Your task to perform on an android device: Google the capital of Colombia Image 0: 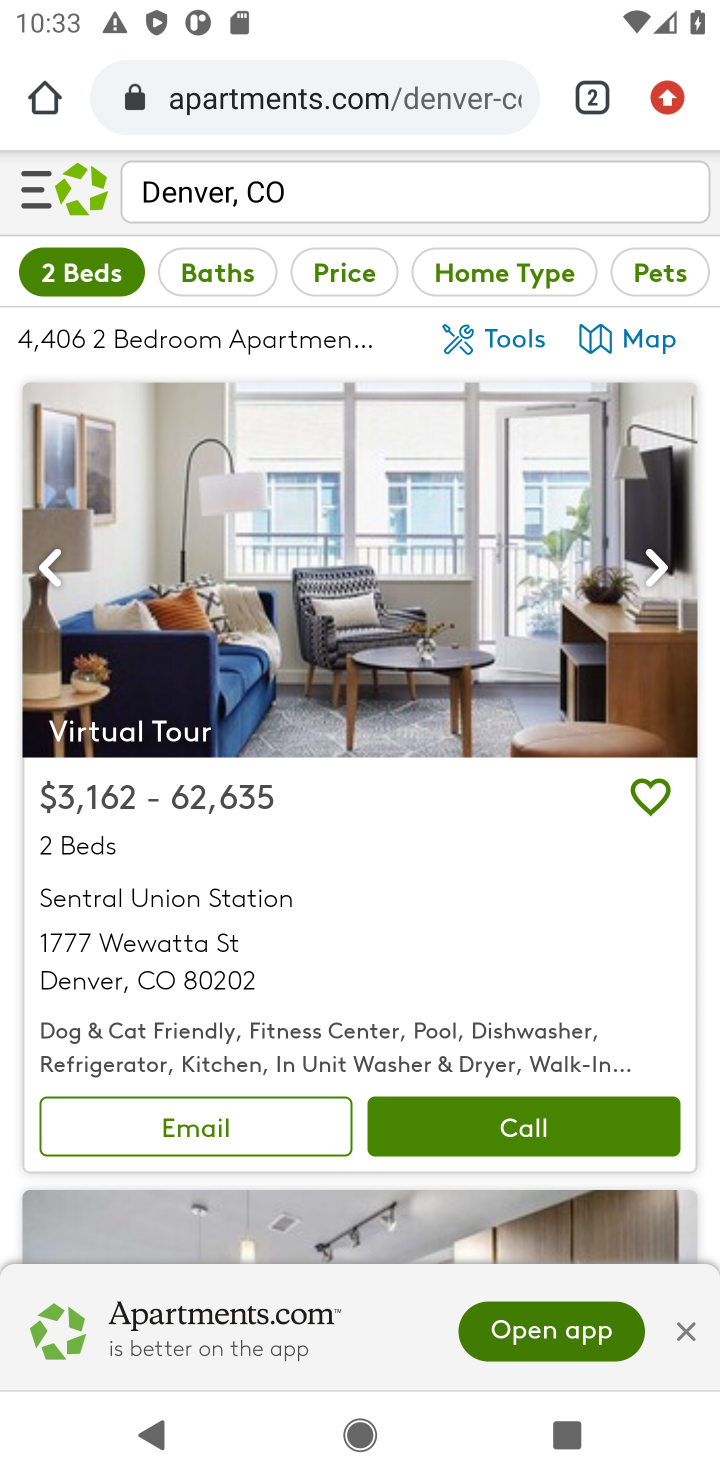
Step 0: press home button
Your task to perform on an android device: Google the capital of Colombia Image 1: 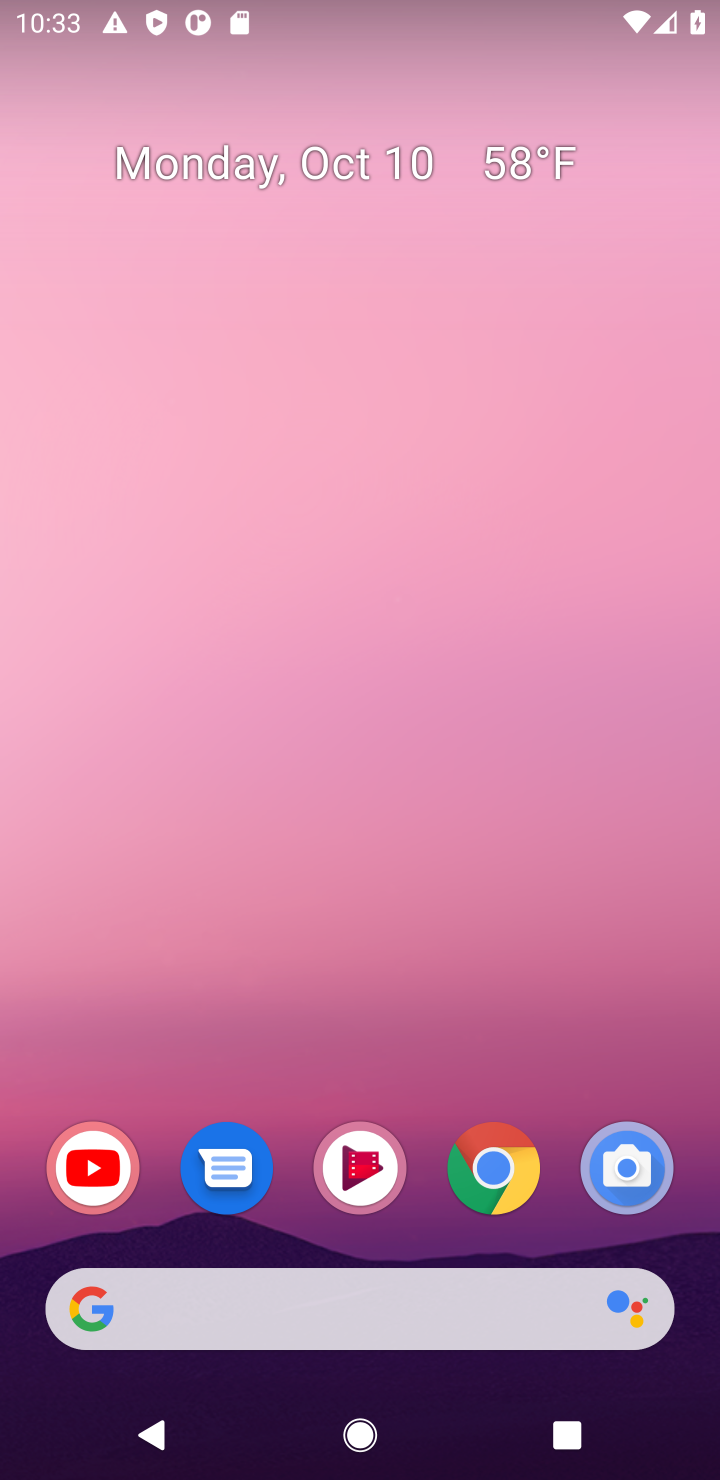
Step 1: click (276, 1282)
Your task to perform on an android device: Google the capital of Colombia Image 2: 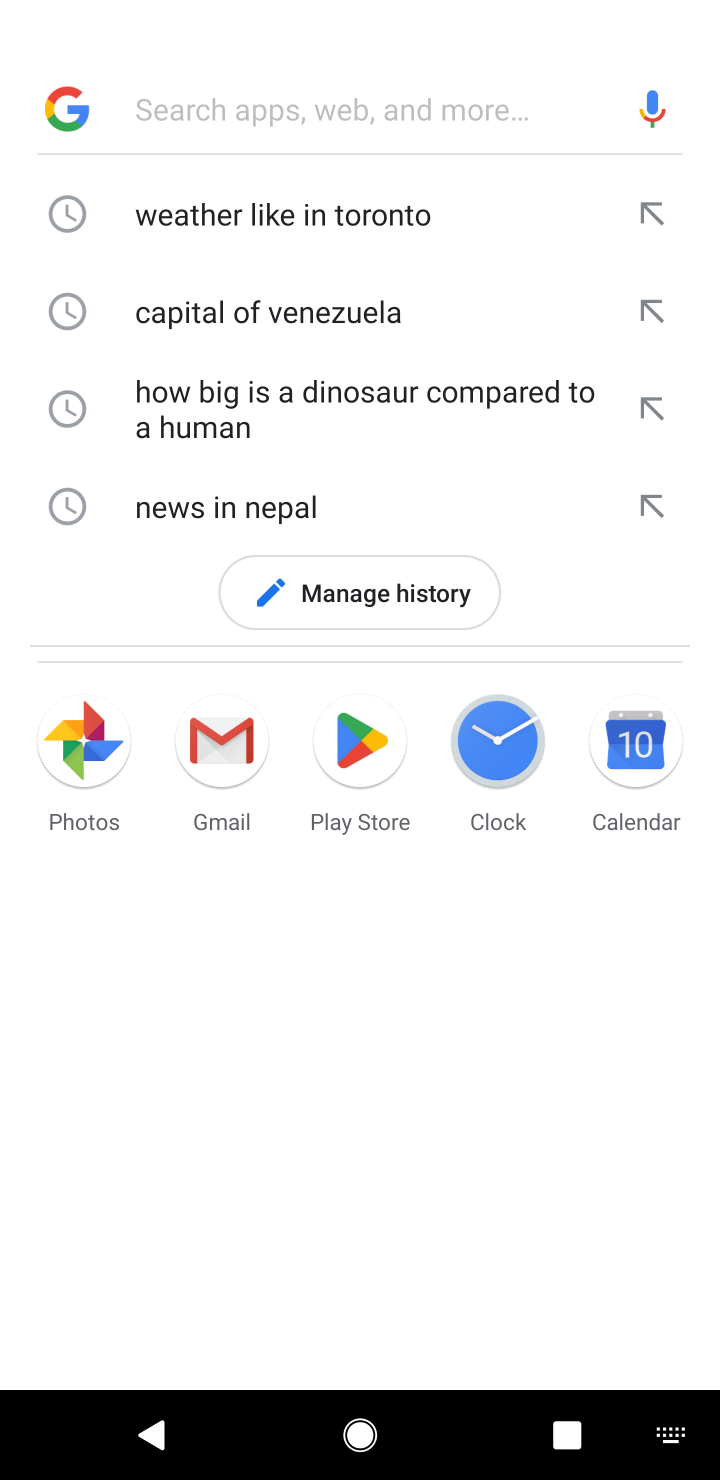
Step 2: type "capital of Colombia"
Your task to perform on an android device: Google the capital of Colombia Image 3: 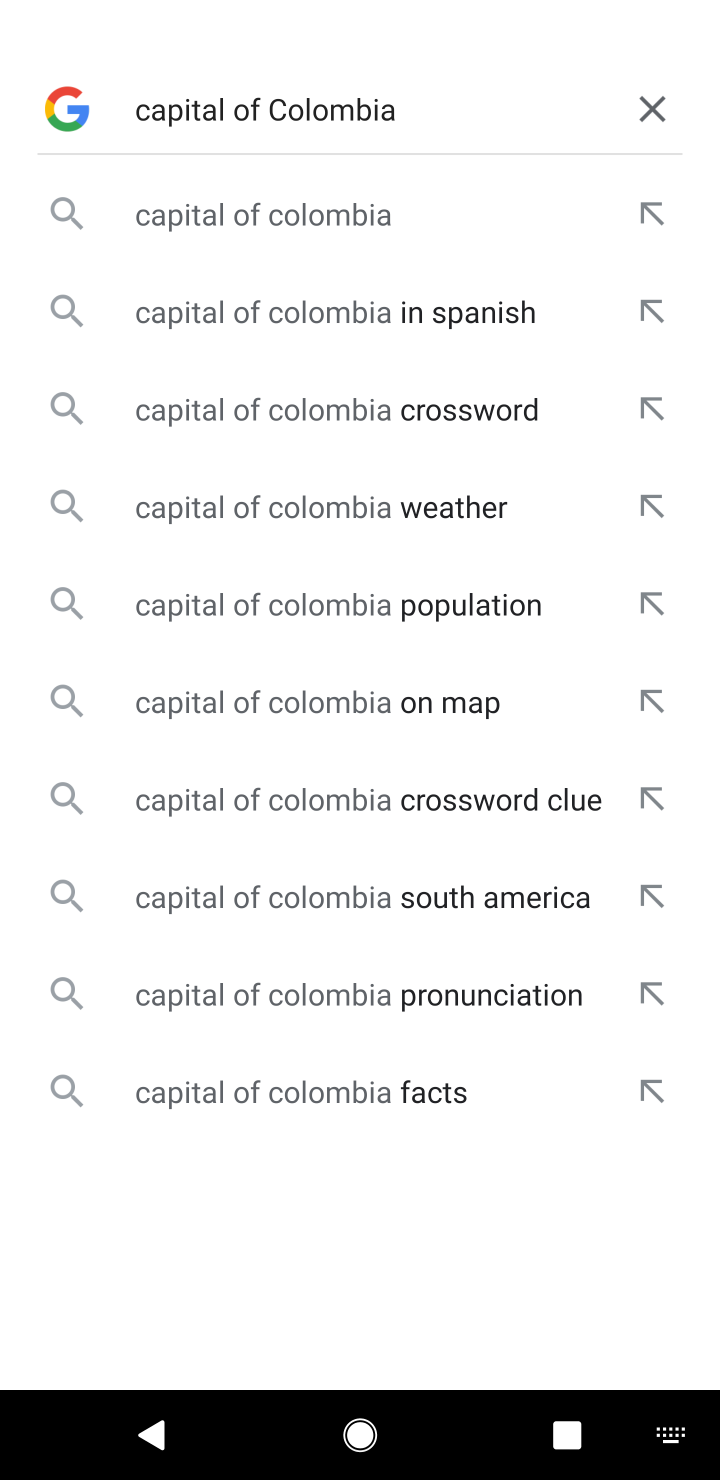
Step 3: type ""
Your task to perform on an android device: Google the capital of Colombia Image 4: 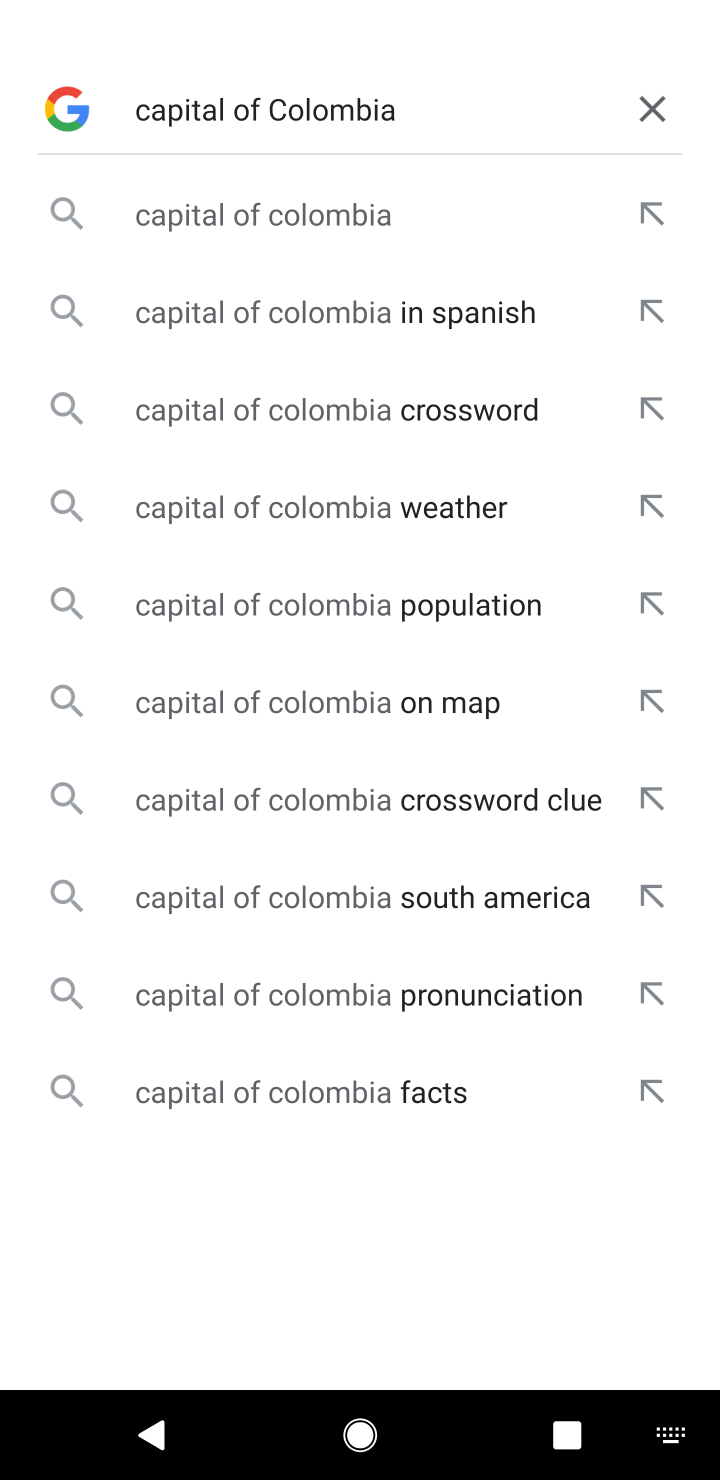
Step 4: click (320, 235)
Your task to perform on an android device: Google the capital of Colombia Image 5: 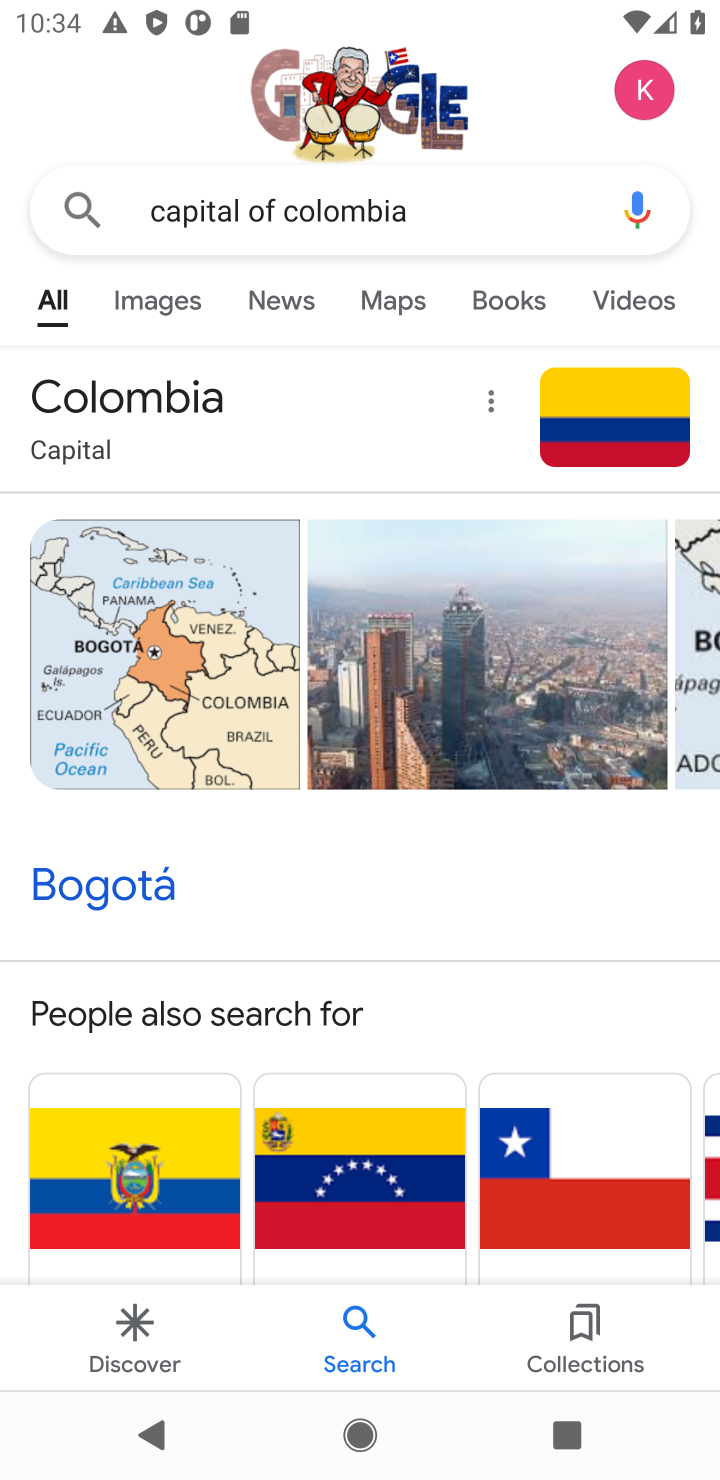
Step 5: task complete